Your task to perform on an android device: open app "Duolingo: language lessons" Image 0: 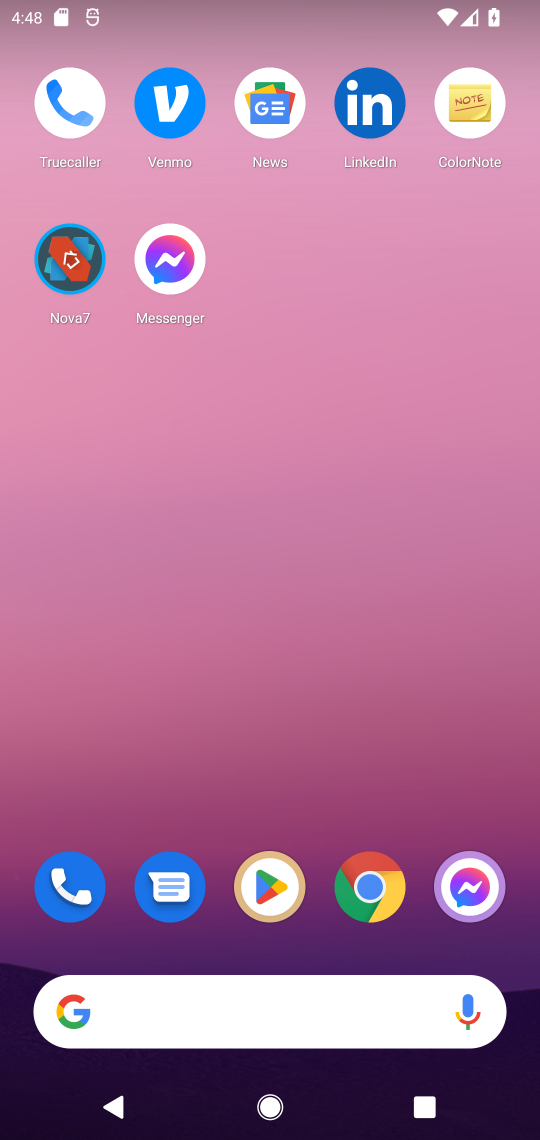
Step 0: click (260, 891)
Your task to perform on an android device: open app "Duolingo: language lessons" Image 1: 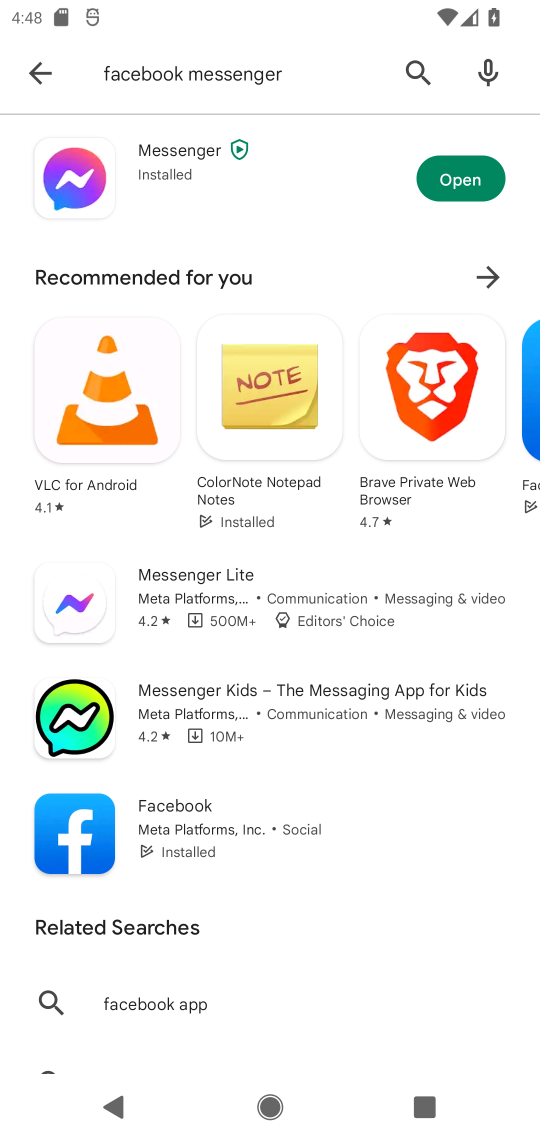
Step 1: click (34, 62)
Your task to perform on an android device: open app "Duolingo: language lessons" Image 2: 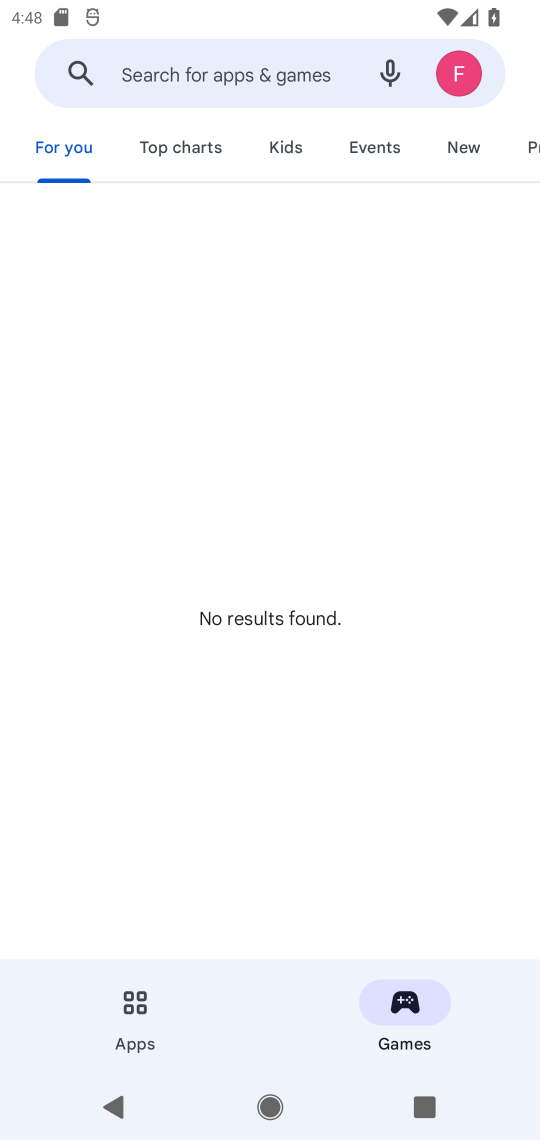
Step 2: click (177, 62)
Your task to perform on an android device: open app "Duolingo: language lessons" Image 3: 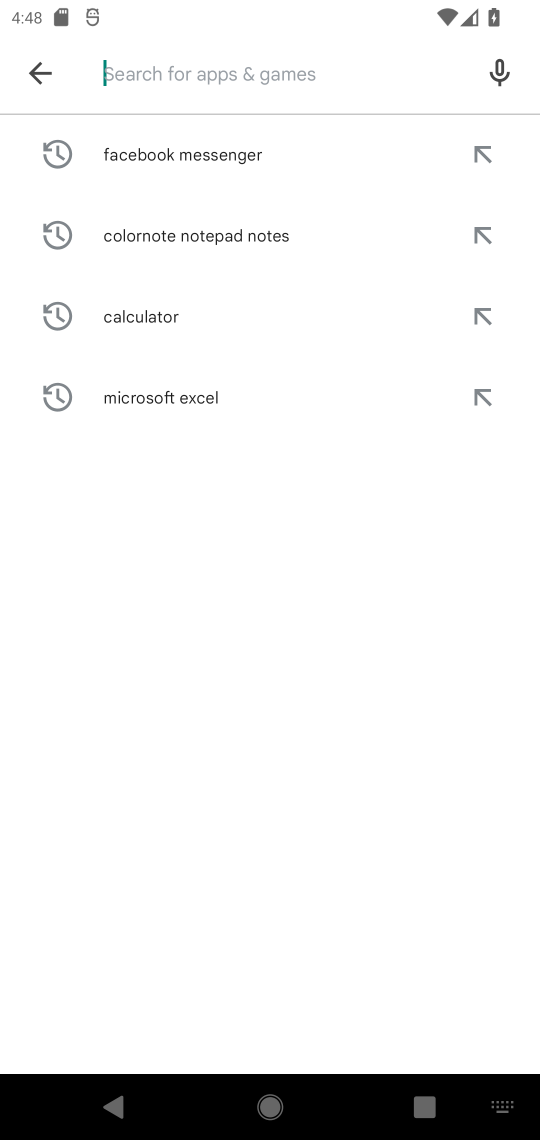
Step 3: type "Duolingo: language lessons"
Your task to perform on an android device: open app "Duolingo: language lessons" Image 4: 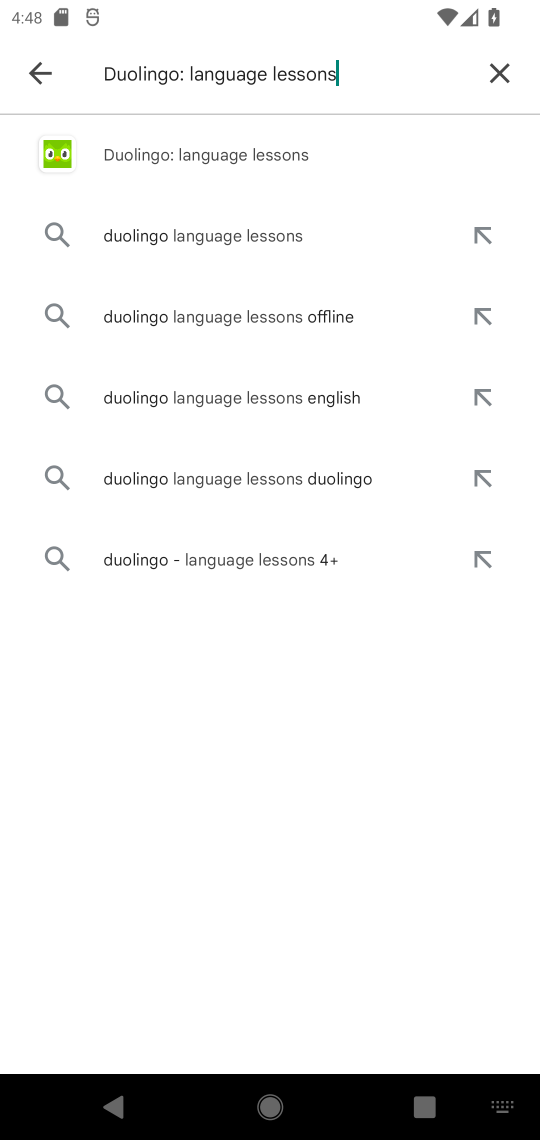
Step 4: click (203, 164)
Your task to perform on an android device: open app "Duolingo: language lessons" Image 5: 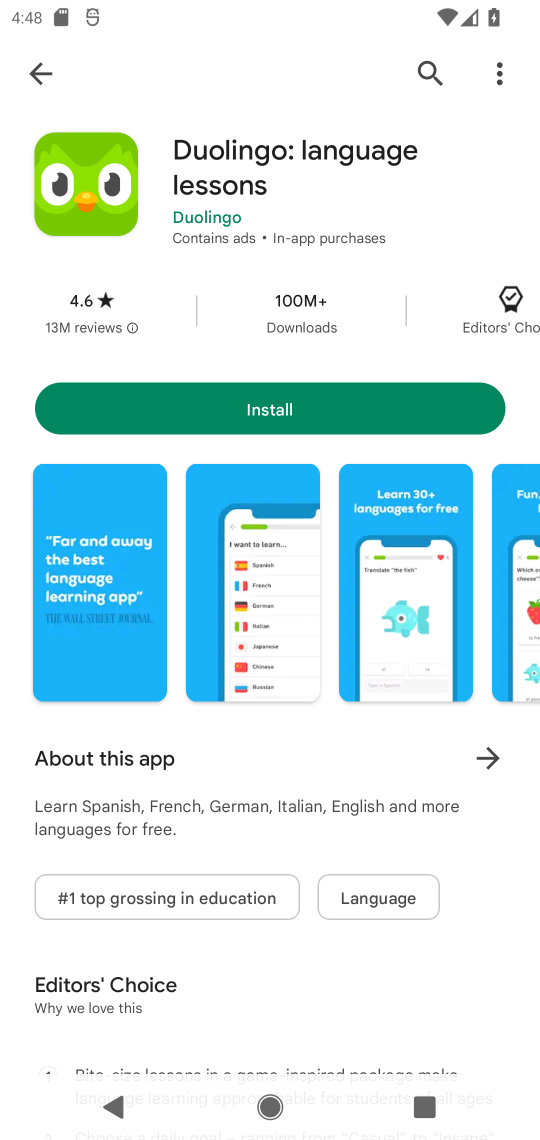
Step 5: click (251, 403)
Your task to perform on an android device: open app "Duolingo: language lessons" Image 6: 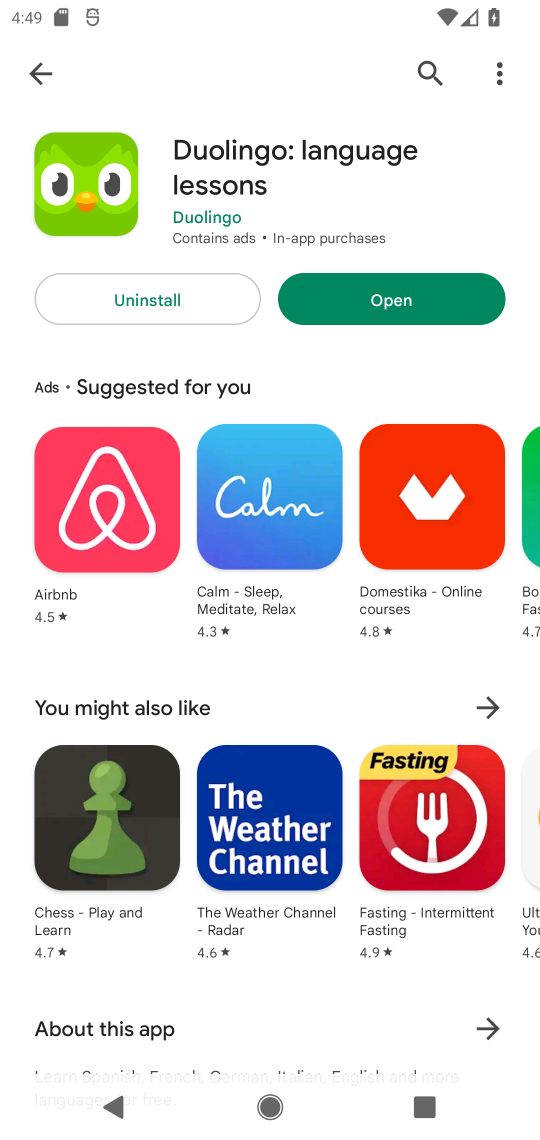
Step 6: click (378, 300)
Your task to perform on an android device: open app "Duolingo: language lessons" Image 7: 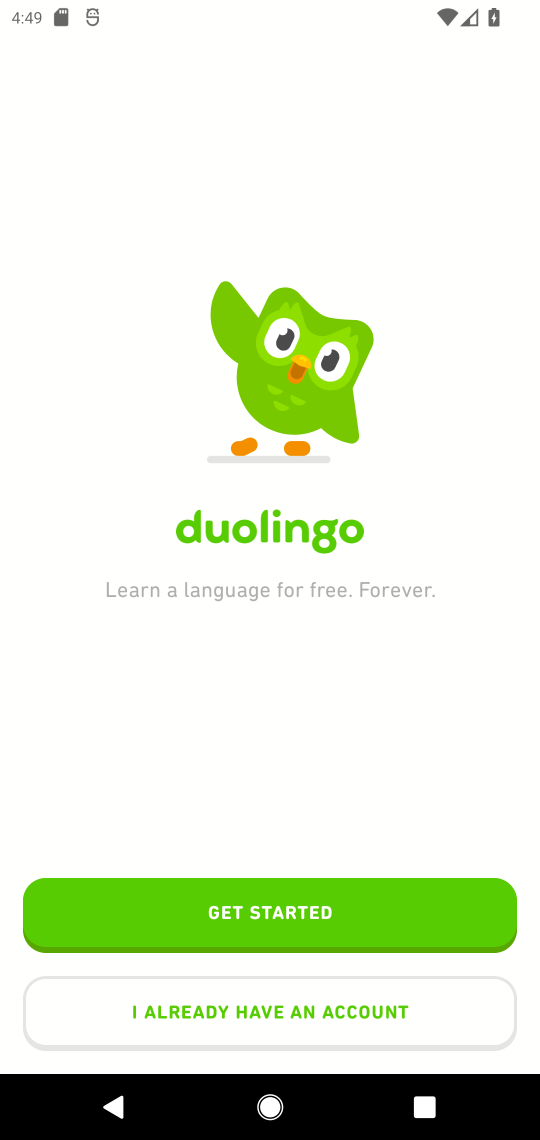
Step 7: task complete